Your task to perform on an android device: turn off priority inbox in the gmail app Image 0: 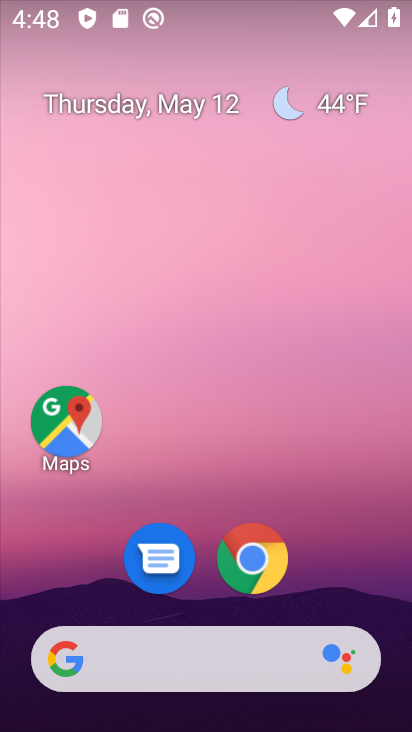
Step 0: drag from (324, 413) to (267, 12)
Your task to perform on an android device: turn off priority inbox in the gmail app Image 1: 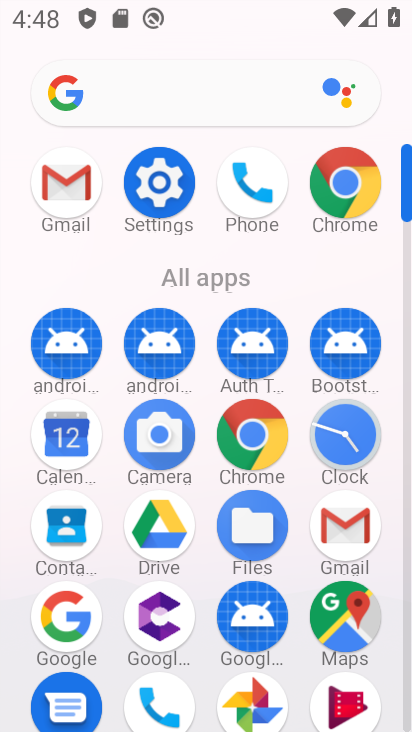
Step 1: drag from (9, 512) to (23, 146)
Your task to perform on an android device: turn off priority inbox in the gmail app Image 2: 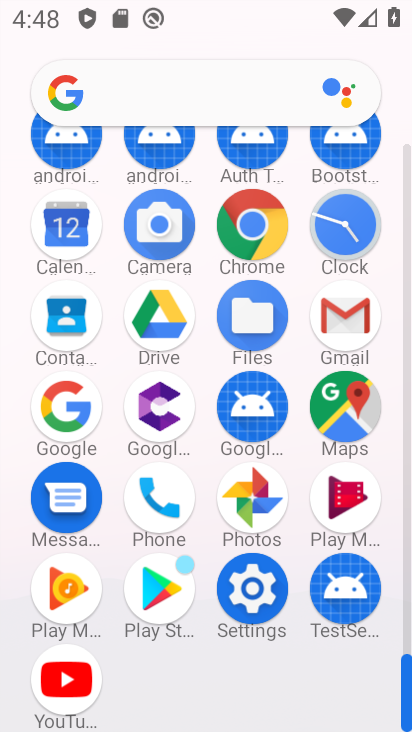
Step 2: drag from (14, 486) to (24, 135)
Your task to perform on an android device: turn off priority inbox in the gmail app Image 3: 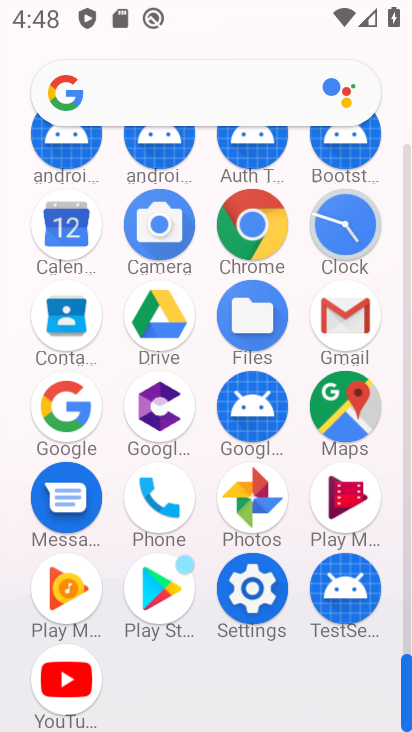
Step 3: click (341, 305)
Your task to perform on an android device: turn off priority inbox in the gmail app Image 4: 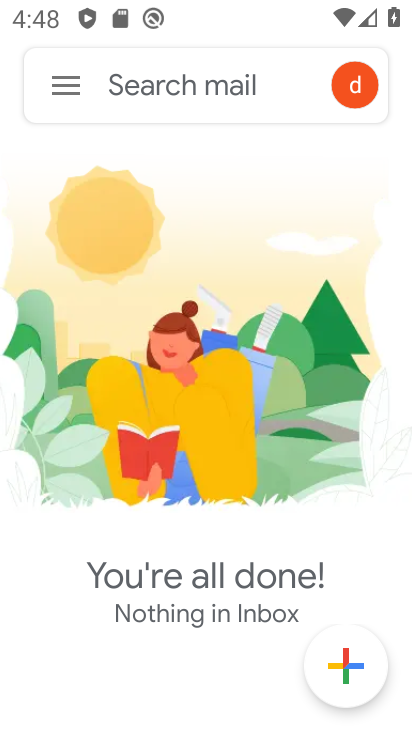
Step 4: click (62, 81)
Your task to perform on an android device: turn off priority inbox in the gmail app Image 5: 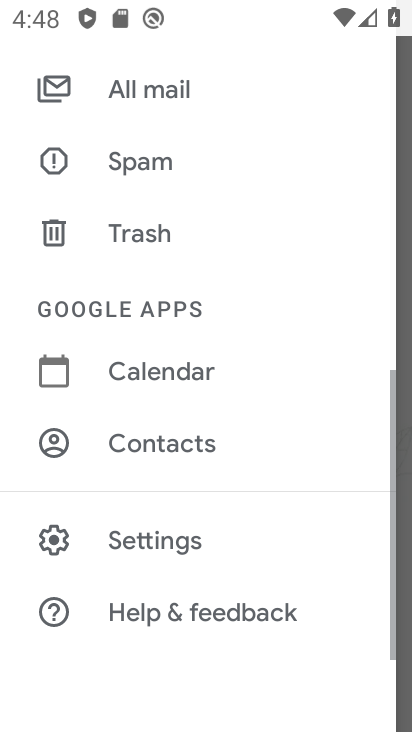
Step 5: drag from (169, 557) to (169, 119)
Your task to perform on an android device: turn off priority inbox in the gmail app Image 6: 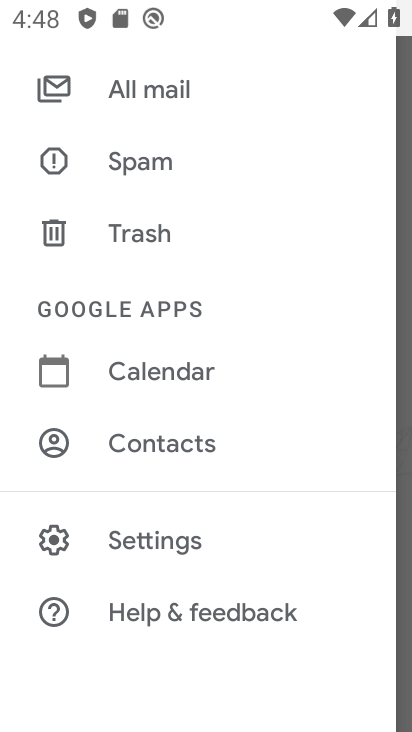
Step 6: click (160, 543)
Your task to perform on an android device: turn off priority inbox in the gmail app Image 7: 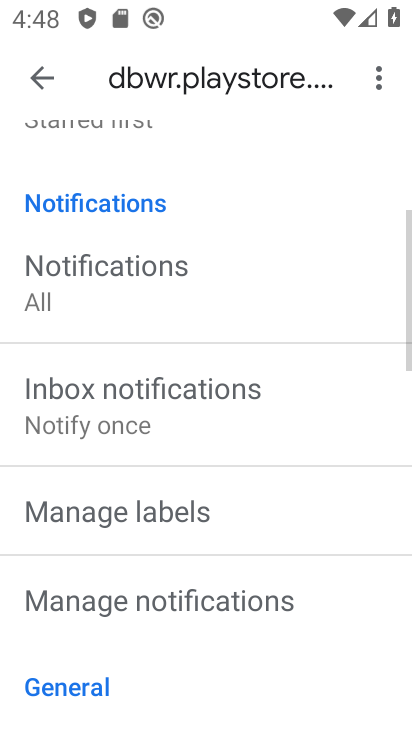
Step 7: drag from (247, 526) to (247, 177)
Your task to perform on an android device: turn off priority inbox in the gmail app Image 8: 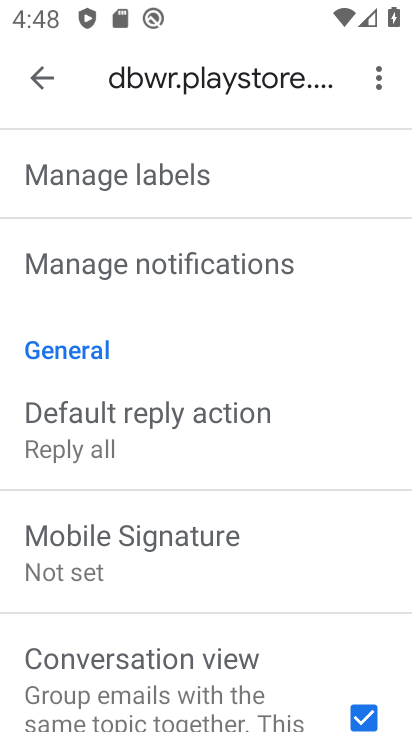
Step 8: drag from (202, 578) to (213, 140)
Your task to perform on an android device: turn off priority inbox in the gmail app Image 9: 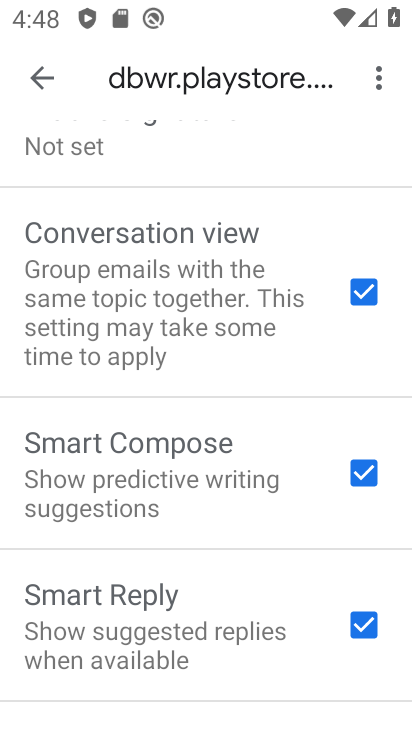
Step 9: drag from (187, 570) to (203, 170)
Your task to perform on an android device: turn off priority inbox in the gmail app Image 10: 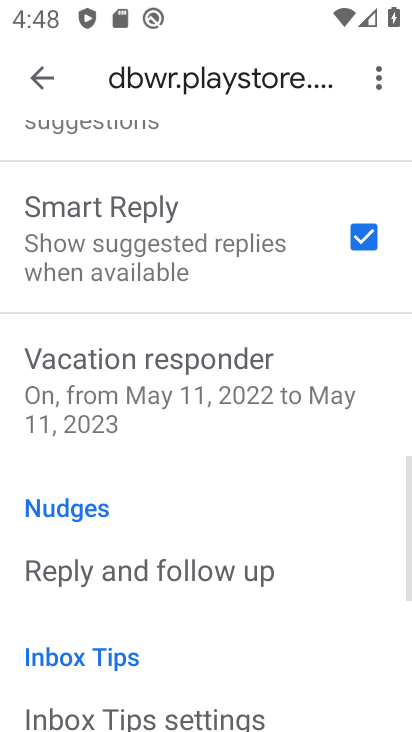
Step 10: drag from (204, 208) to (202, 696)
Your task to perform on an android device: turn off priority inbox in the gmail app Image 11: 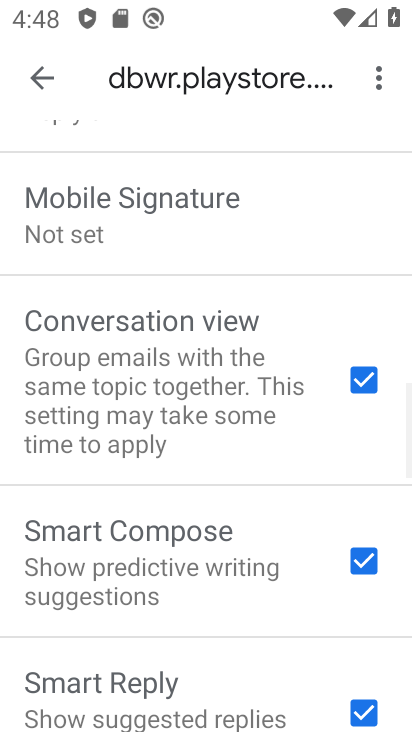
Step 11: drag from (212, 282) to (209, 690)
Your task to perform on an android device: turn off priority inbox in the gmail app Image 12: 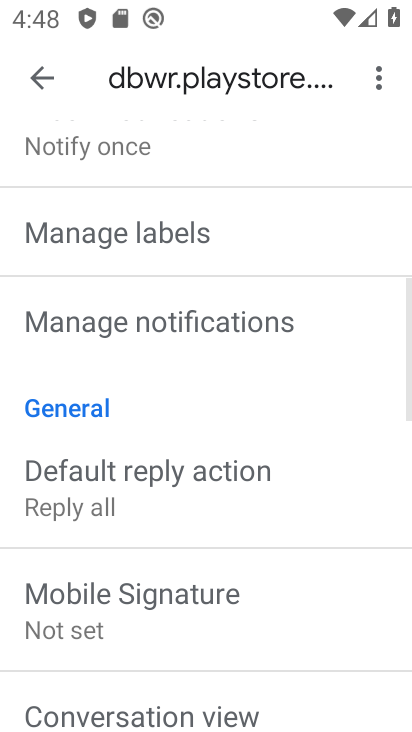
Step 12: drag from (222, 213) to (225, 643)
Your task to perform on an android device: turn off priority inbox in the gmail app Image 13: 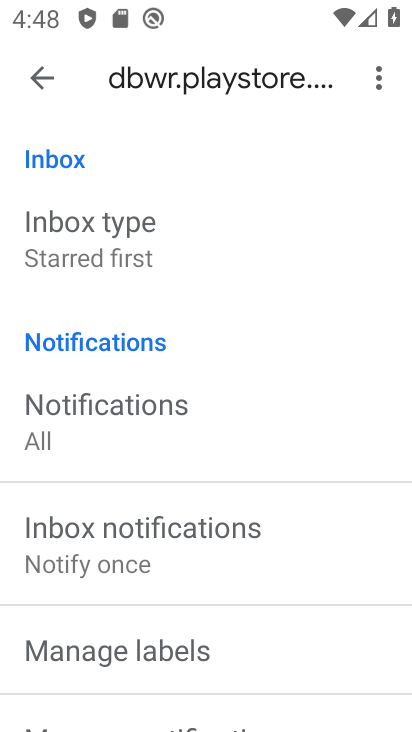
Step 13: drag from (224, 280) to (207, 579)
Your task to perform on an android device: turn off priority inbox in the gmail app Image 14: 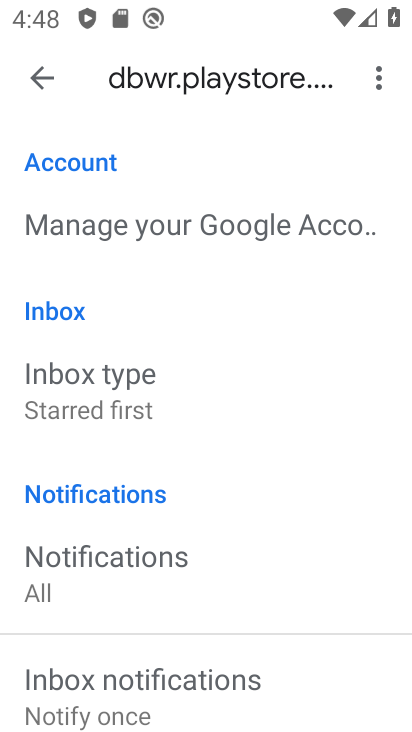
Step 14: drag from (223, 241) to (208, 580)
Your task to perform on an android device: turn off priority inbox in the gmail app Image 15: 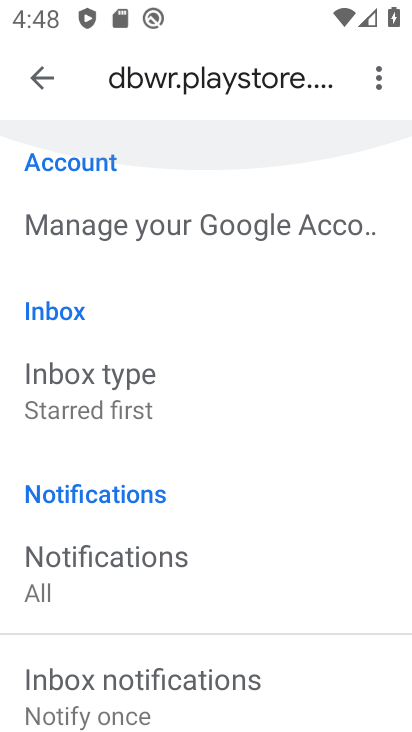
Step 15: drag from (208, 572) to (228, 203)
Your task to perform on an android device: turn off priority inbox in the gmail app Image 16: 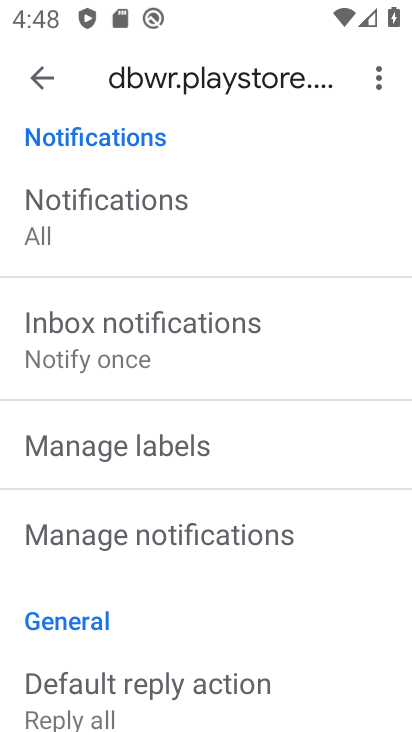
Step 16: drag from (200, 474) to (215, 176)
Your task to perform on an android device: turn off priority inbox in the gmail app Image 17: 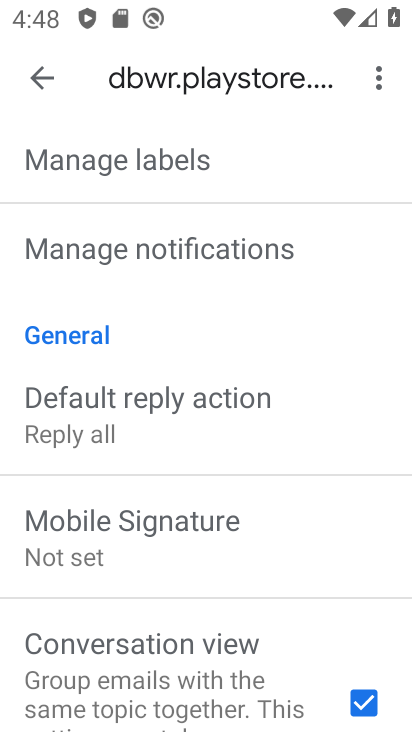
Step 17: drag from (178, 584) to (253, 202)
Your task to perform on an android device: turn off priority inbox in the gmail app Image 18: 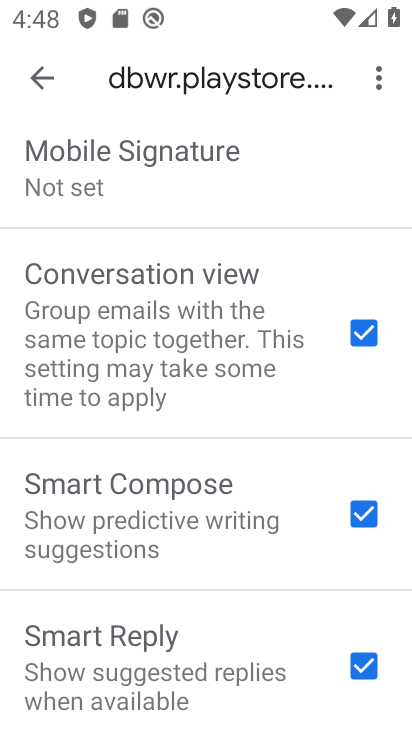
Step 18: drag from (198, 589) to (248, 190)
Your task to perform on an android device: turn off priority inbox in the gmail app Image 19: 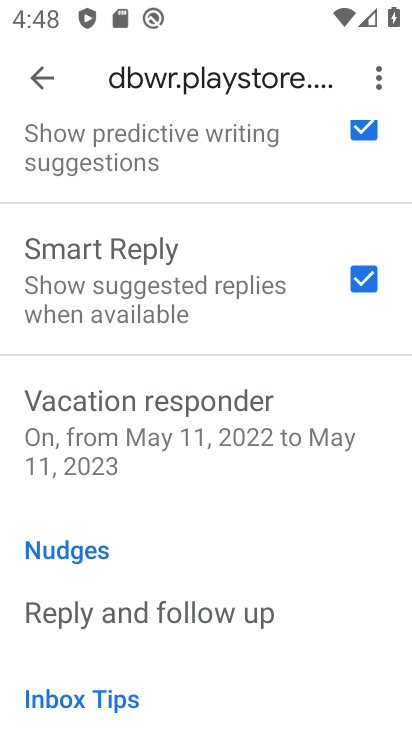
Step 19: drag from (172, 597) to (205, 208)
Your task to perform on an android device: turn off priority inbox in the gmail app Image 20: 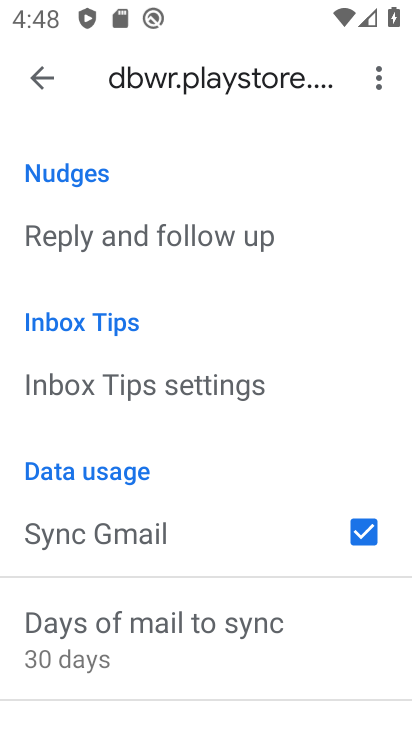
Step 20: drag from (193, 594) to (206, 197)
Your task to perform on an android device: turn off priority inbox in the gmail app Image 21: 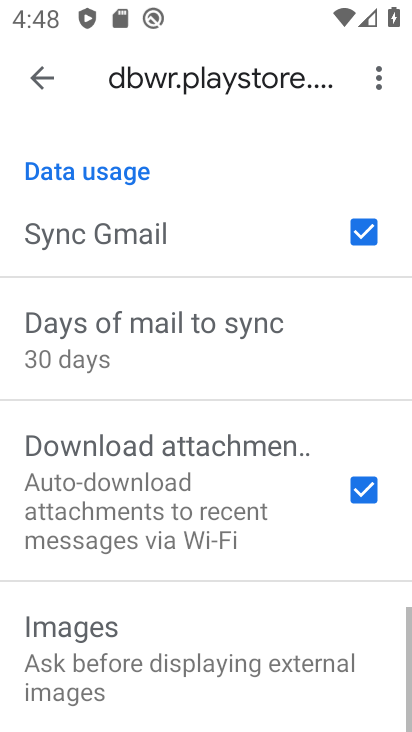
Step 21: drag from (197, 612) to (204, 180)
Your task to perform on an android device: turn off priority inbox in the gmail app Image 22: 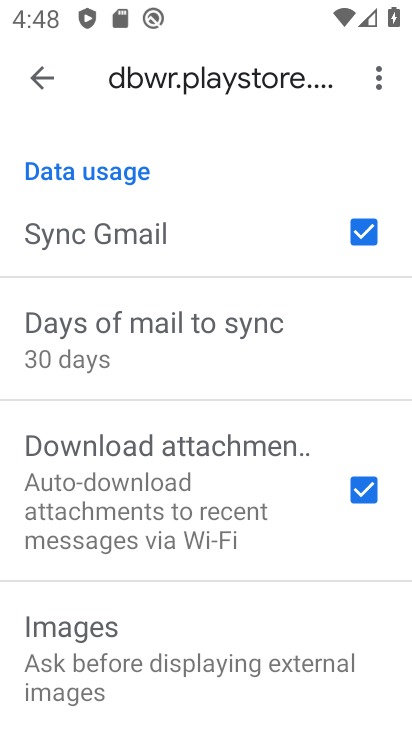
Step 22: drag from (202, 221) to (206, 651)
Your task to perform on an android device: turn off priority inbox in the gmail app Image 23: 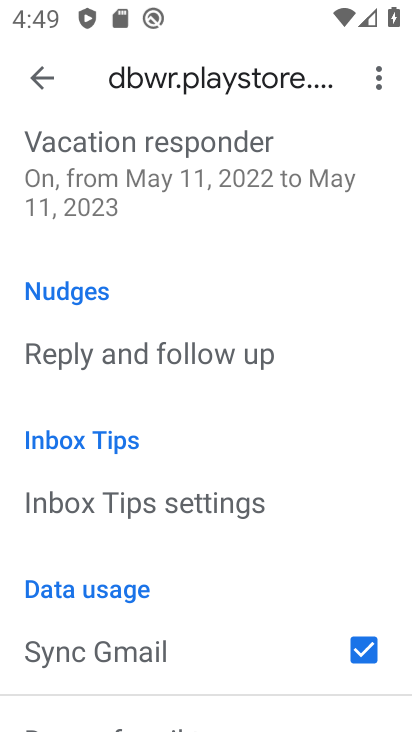
Step 23: drag from (230, 340) to (230, 655)
Your task to perform on an android device: turn off priority inbox in the gmail app Image 24: 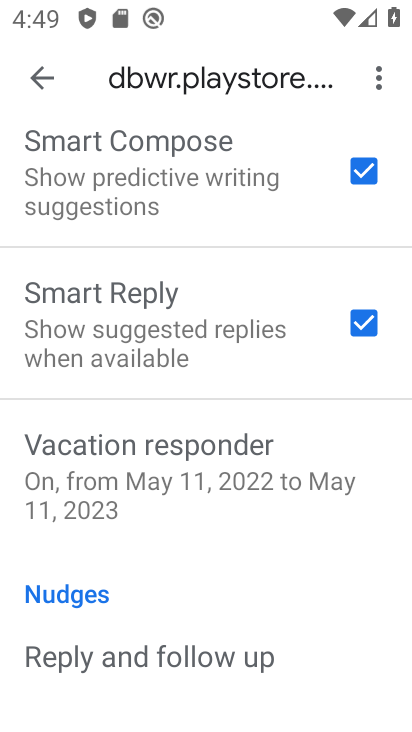
Step 24: drag from (229, 355) to (220, 691)
Your task to perform on an android device: turn off priority inbox in the gmail app Image 25: 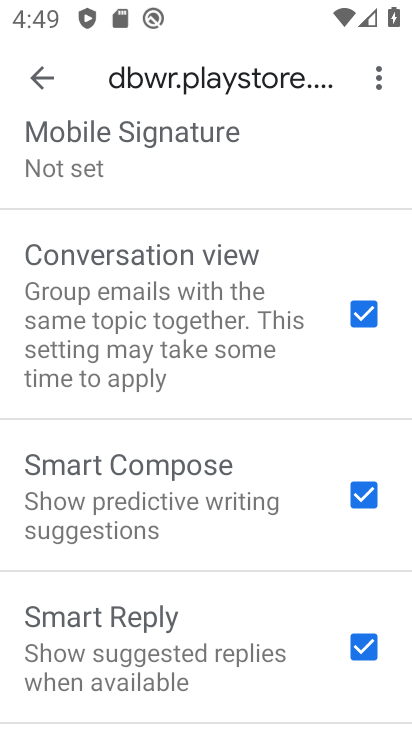
Step 25: drag from (226, 355) to (219, 669)
Your task to perform on an android device: turn off priority inbox in the gmail app Image 26: 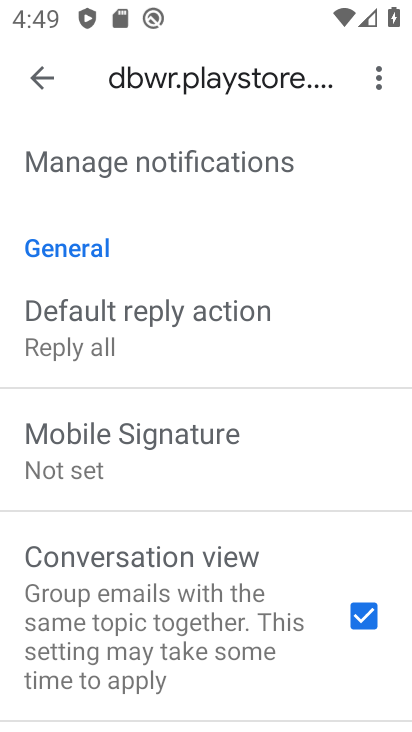
Step 26: drag from (247, 269) to (224, 604)
Your task to perform on an android device: turn off priority inbox in the gmail app Image 27: 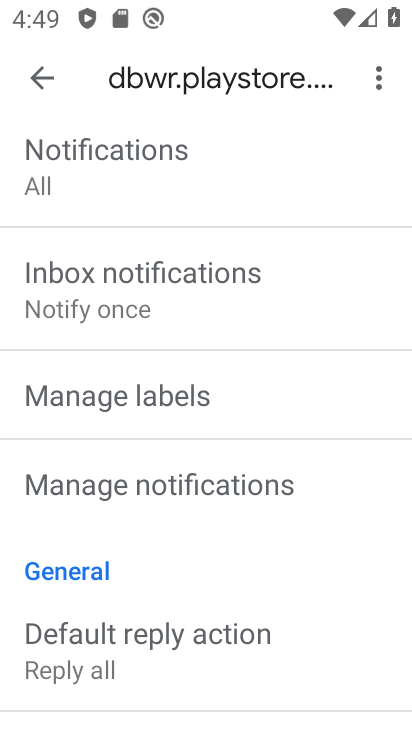
Step 27: drag from (234, 254) to (234, 600)
Your task to perform on an android device: turn off priority inbox in the gmail app Image 28: 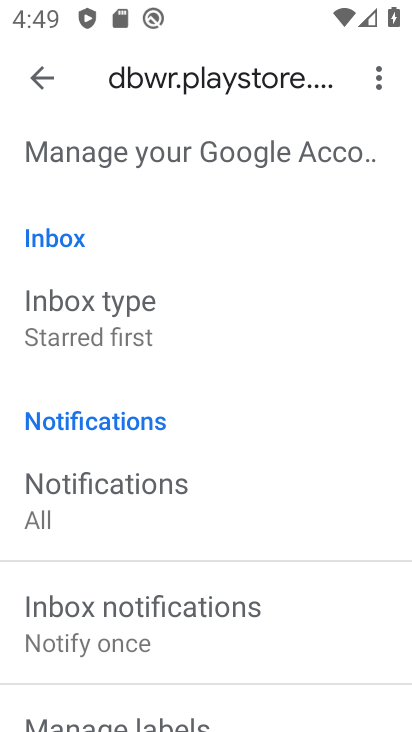
Step 28: click (130, 314)
Your task to perform on an android device: turn off priority inbox in the gmail app Image 29: 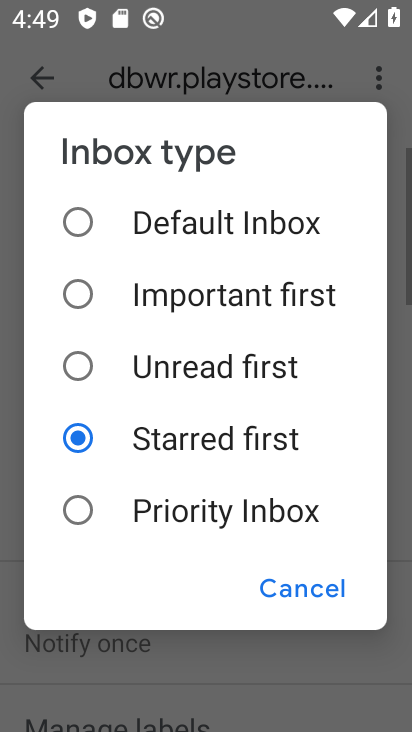
Step 29: click (142, 523)
Your task to perform on an android device: turn off priority inbox in the gmail app Image 30: 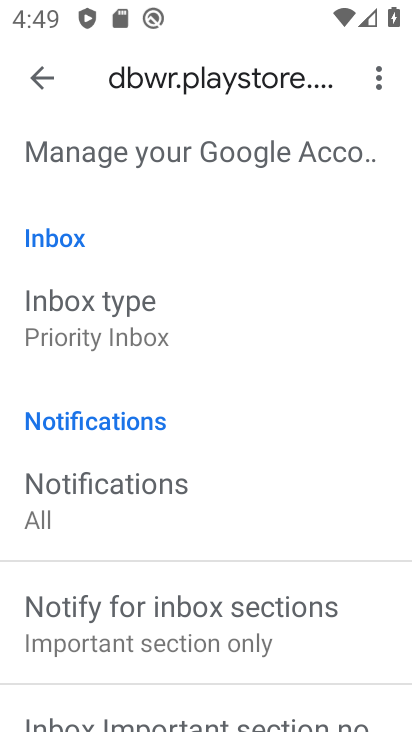
Step 30: task complete